Your task to perform on an android device: check google app version Image 0: 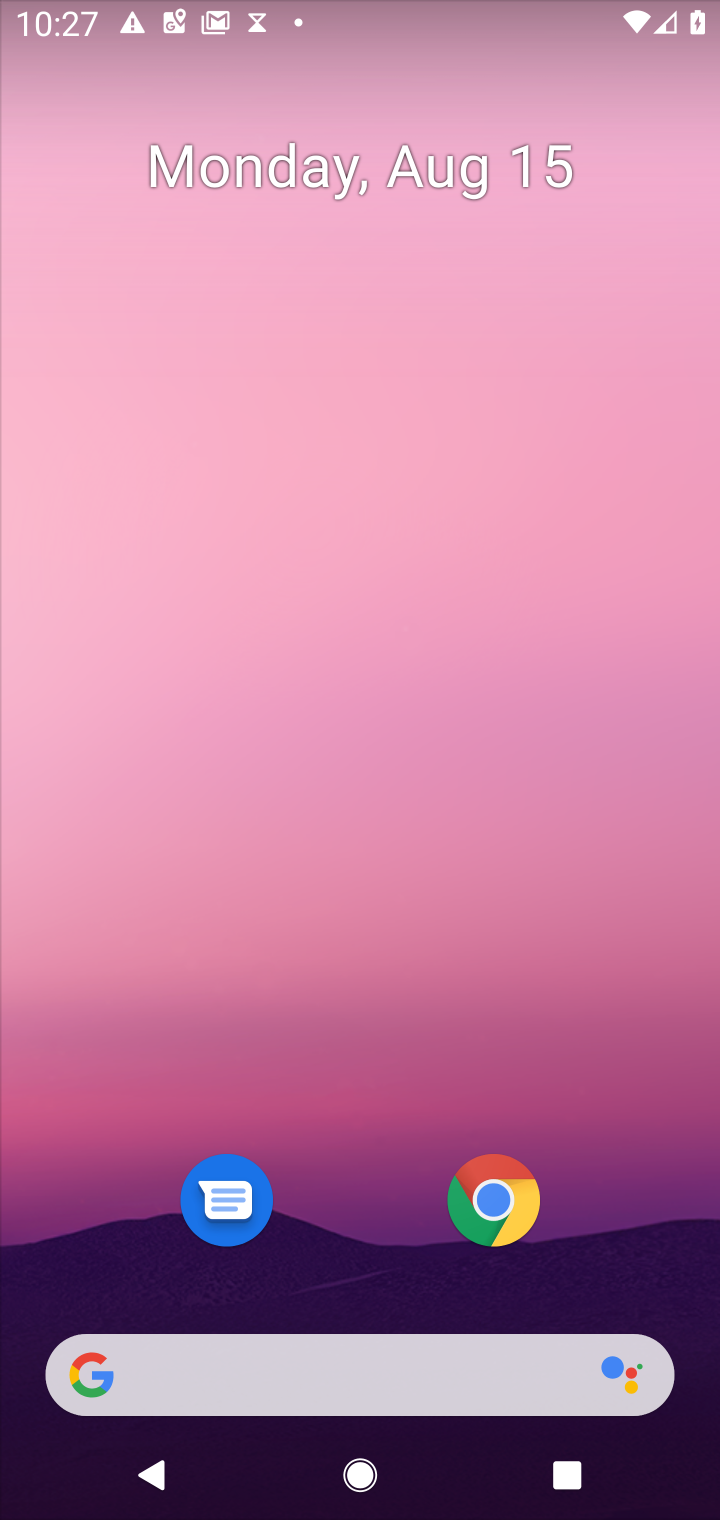
Step 0: press home button
Your task to perform on an android device: check google app version Image 1: 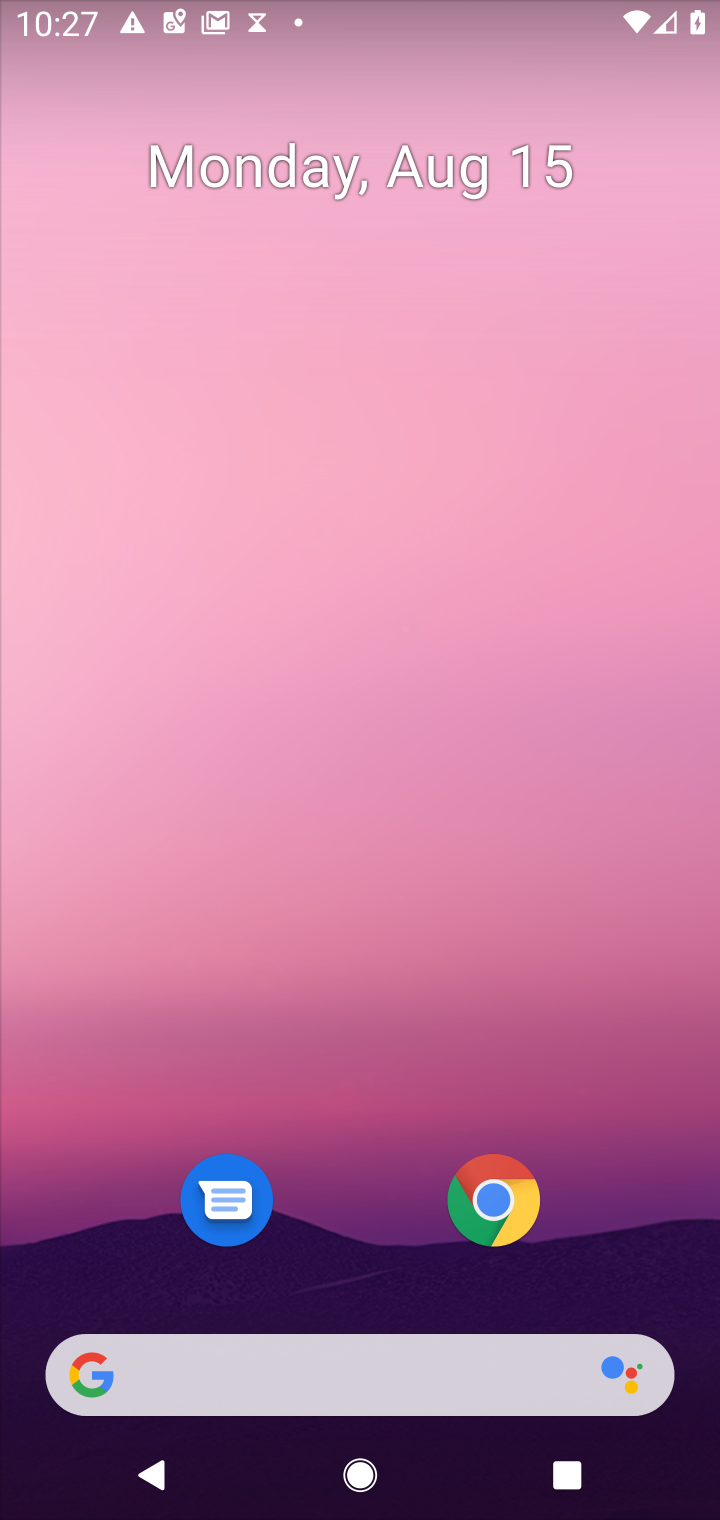
Step 1: drag from (367, 1244) to (367, 476)
Your task to perform on an android device: check google app version Image 2: 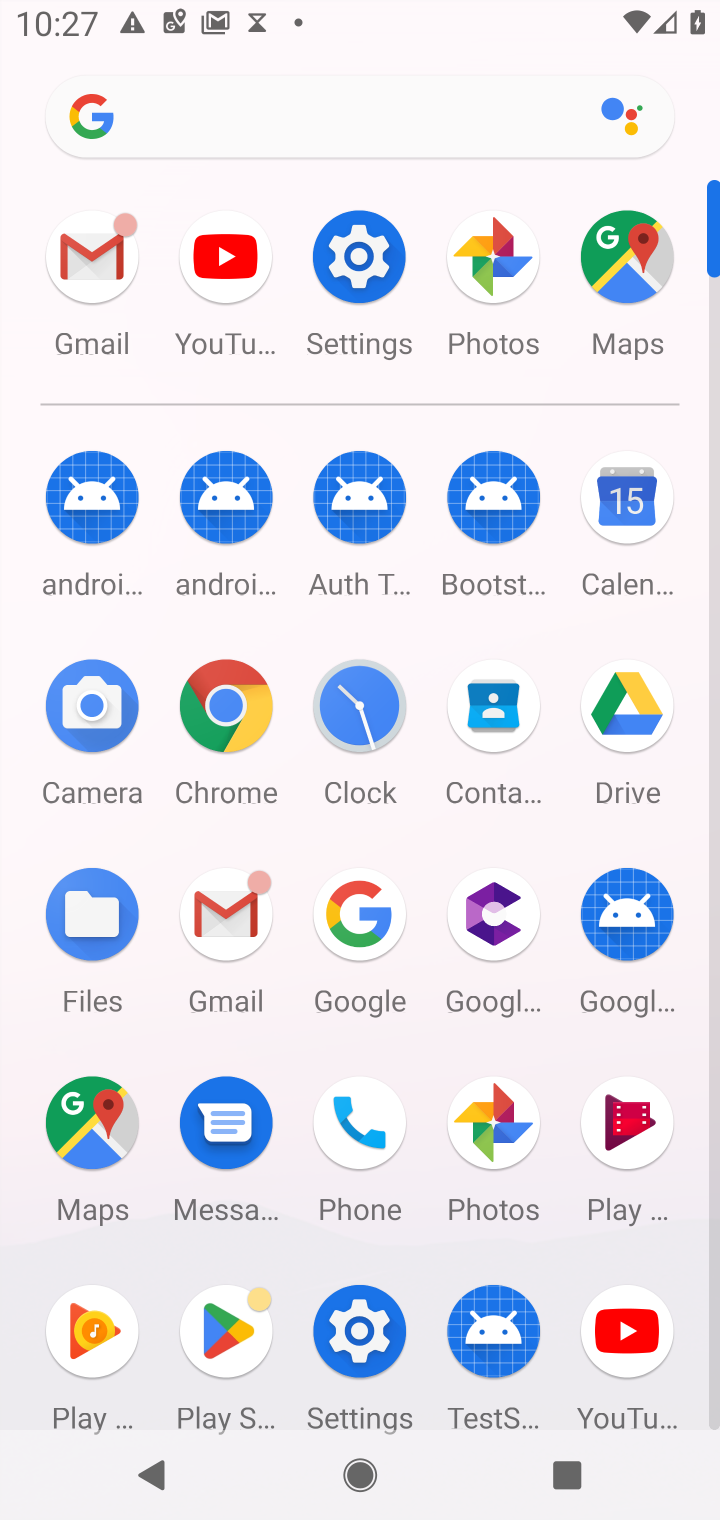
Step 2: click (360, 913)
Your task to perform on an android device: check google app version Image 3: 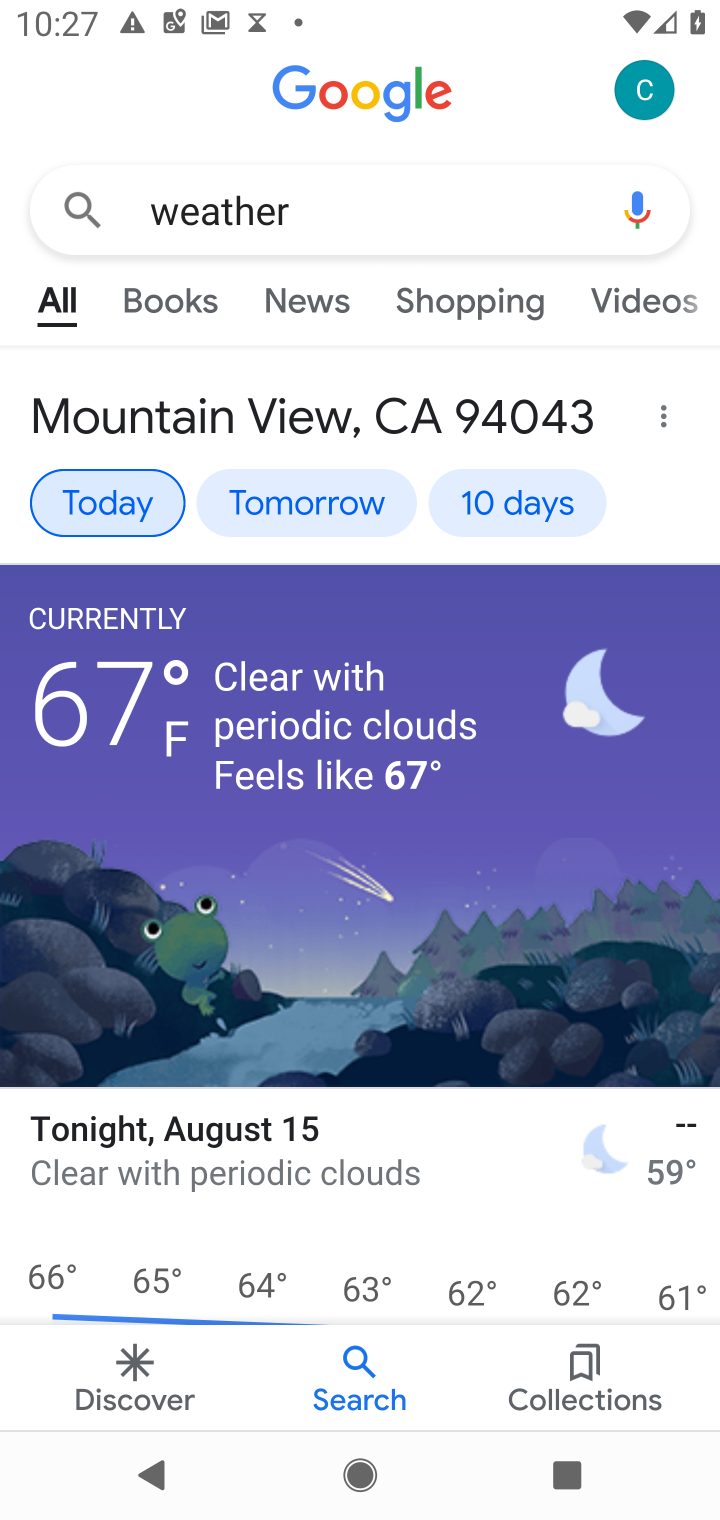
Step 3: click (629, 88)
Your task to perform on an android device: check google app version Image 4: 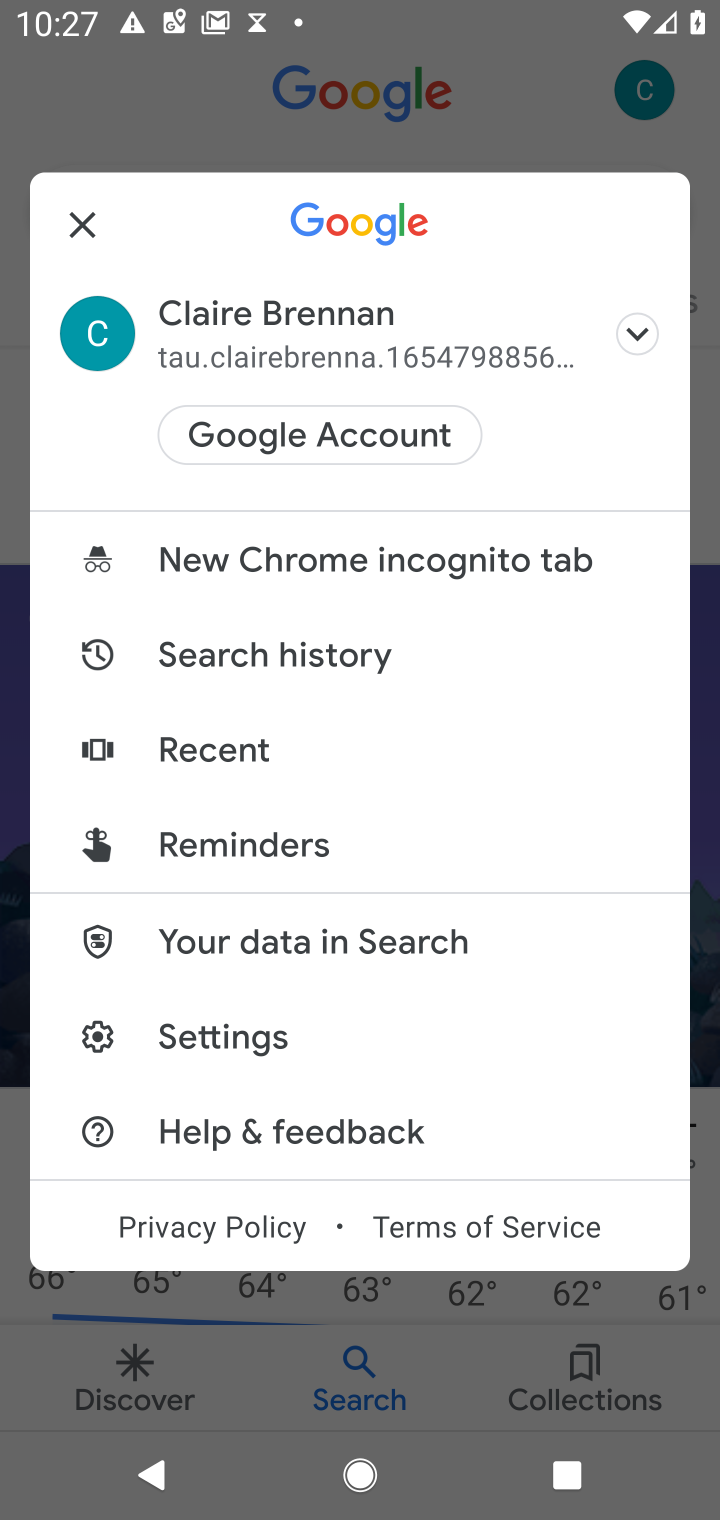
Step 4: click (248, 1043)
Your task to perform on an android device: check google app version Image 5: 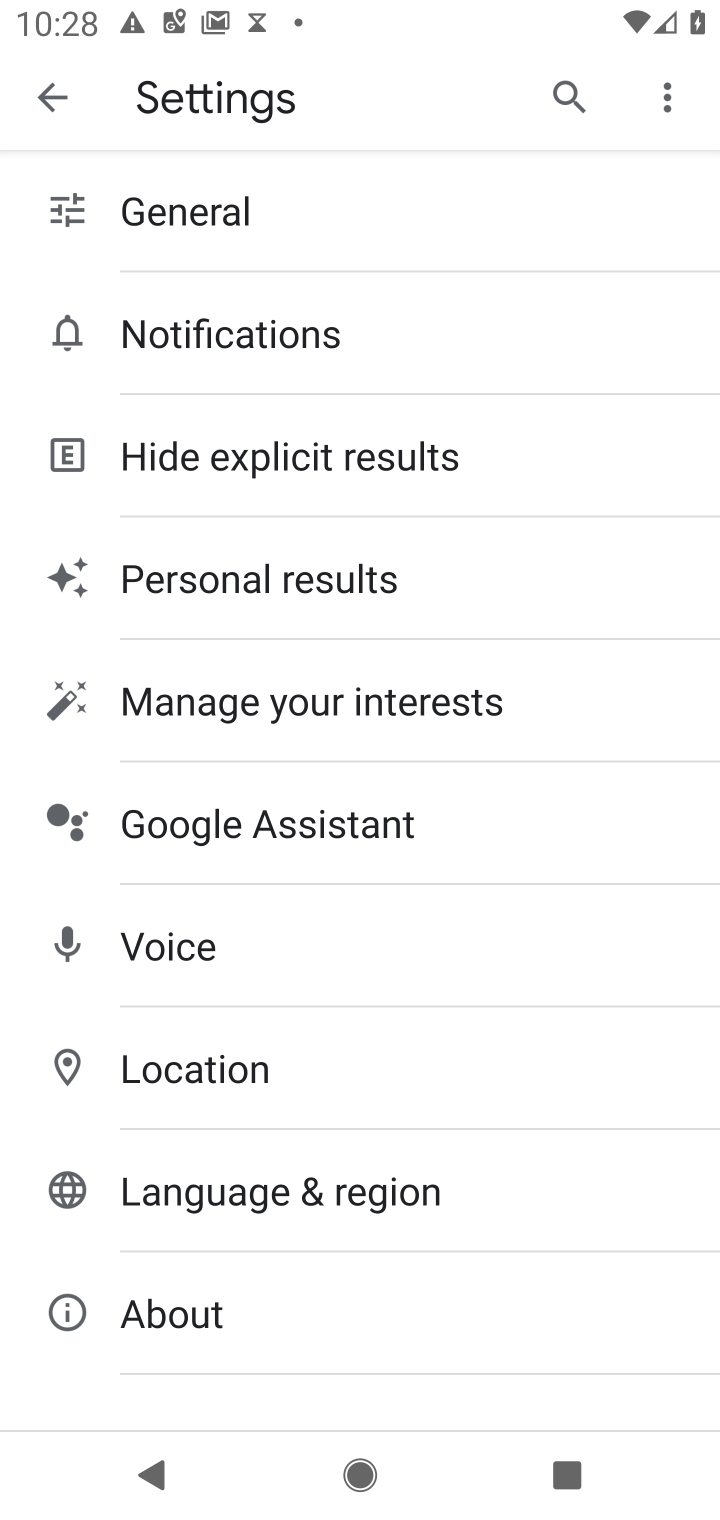
Step 5: drag from (346, 1257) to (346, 682)
Your task to perform on an android device: check google app version Image 6: 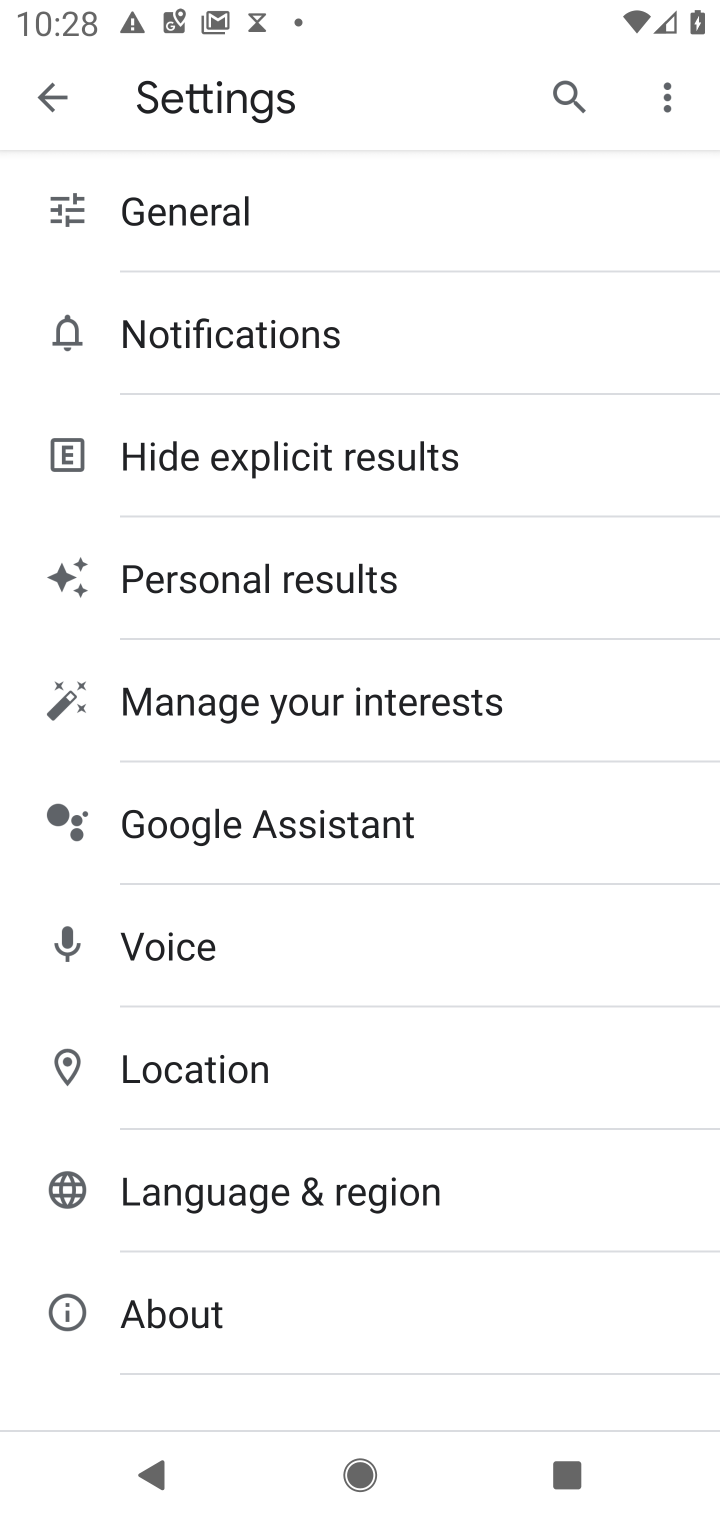
Step 6: click (268, 1296)
Your task to perform on an android device: check google app version Image 7: 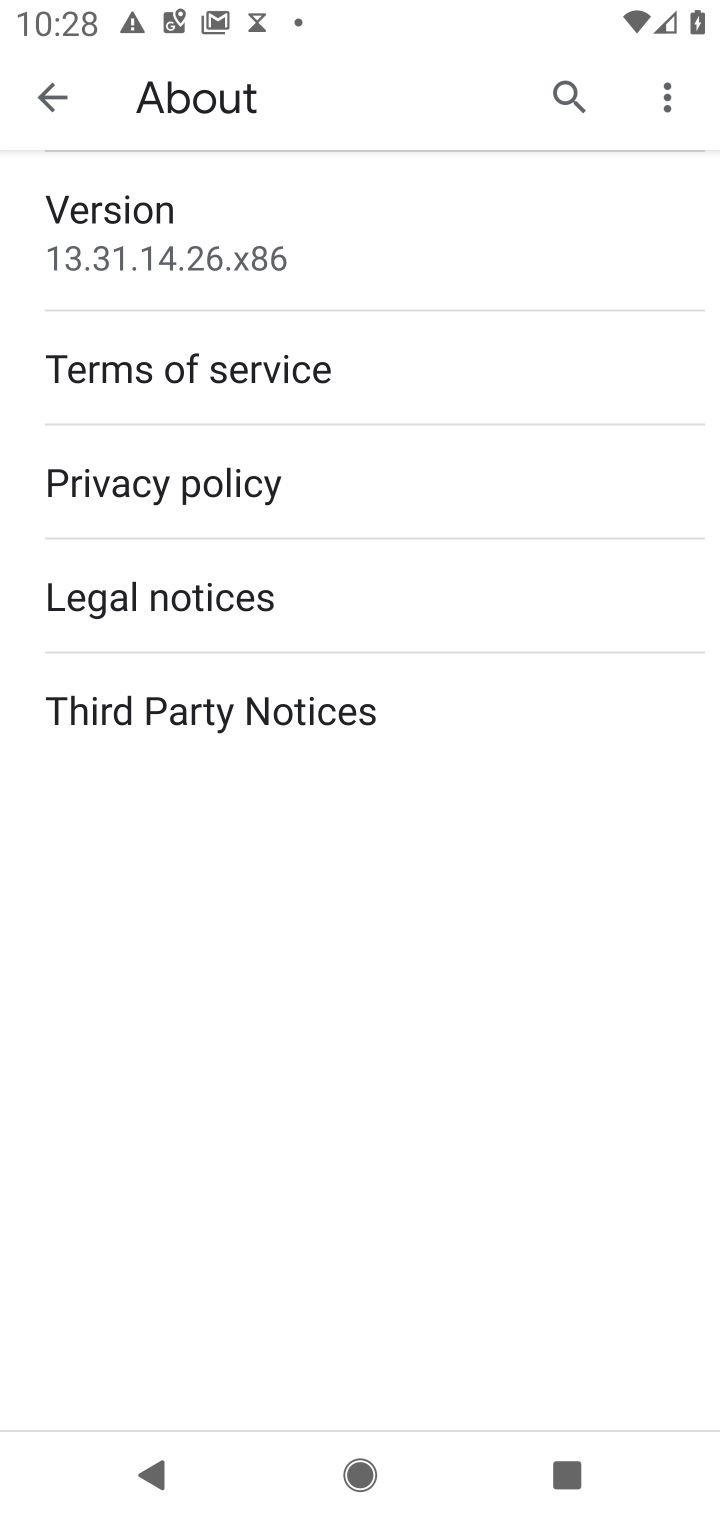
Step 7: click (261, 251)
Your task to perform on an android device: check google app version Image 8: 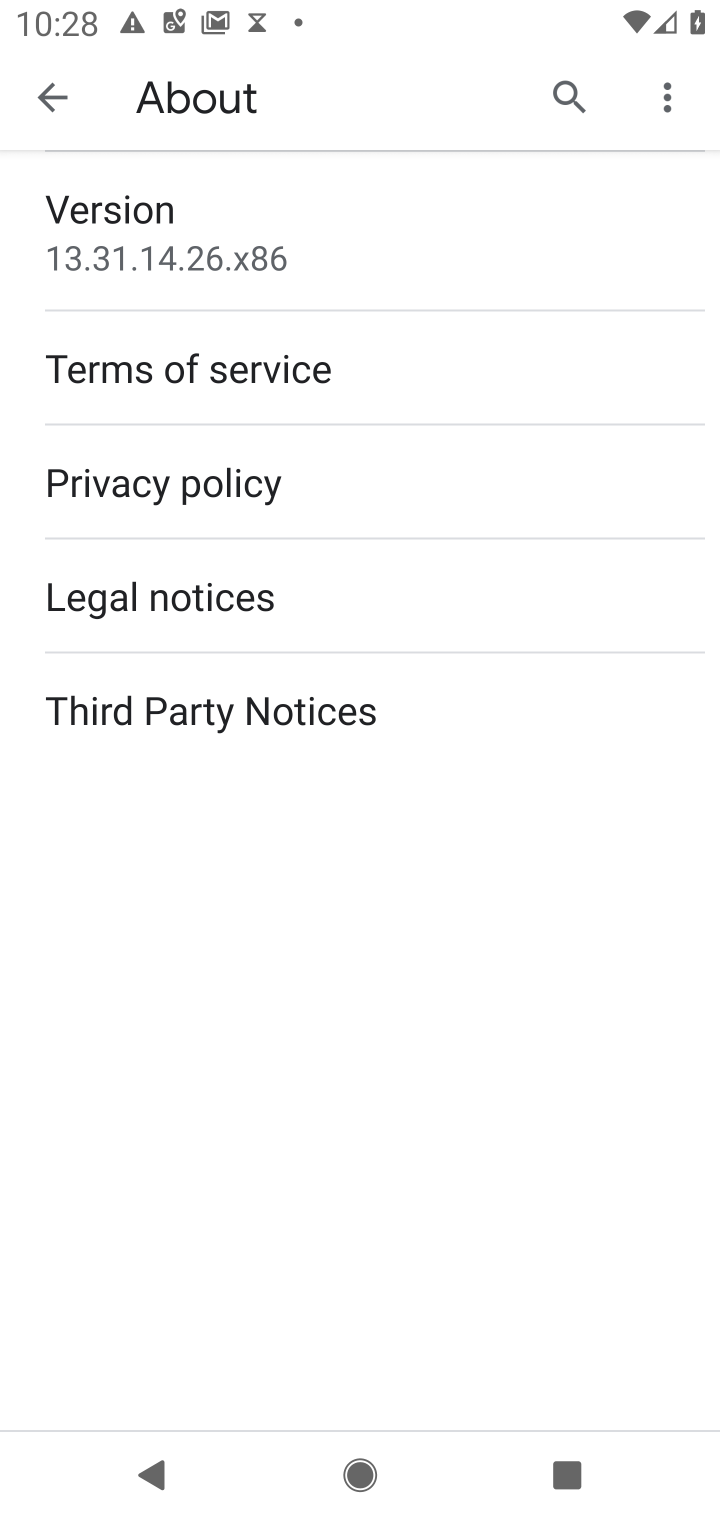
Step 8: click (347, 223)
Your task to perform on an android device: check google app version Image 9: 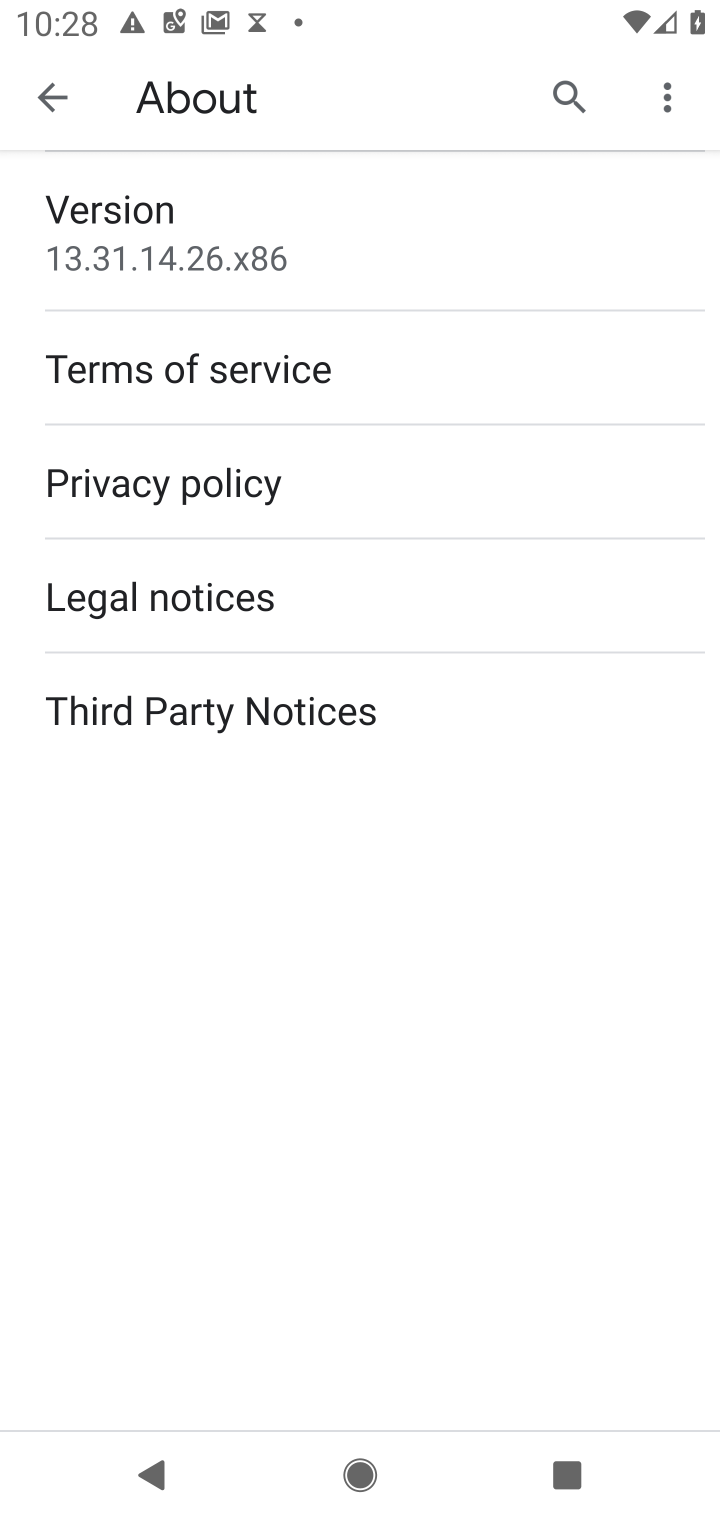
Step 9: task complete